Your task to perform on an android device: What's the weather going to be tomorrow? Image 0: 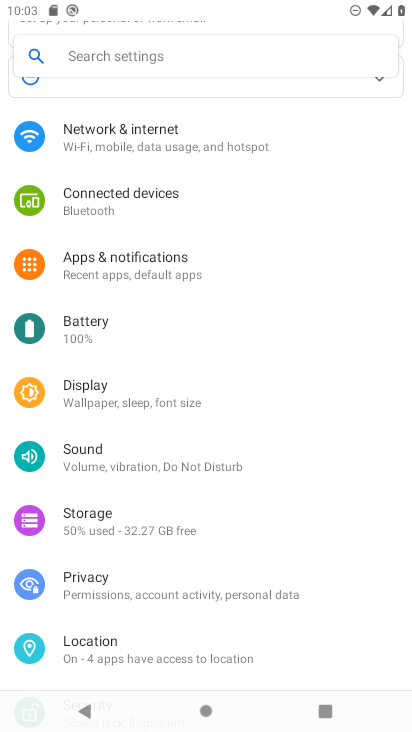
Step 0: press home button
Your task to perform on an android device: What's the weather going to be tomorrow? Image 1: 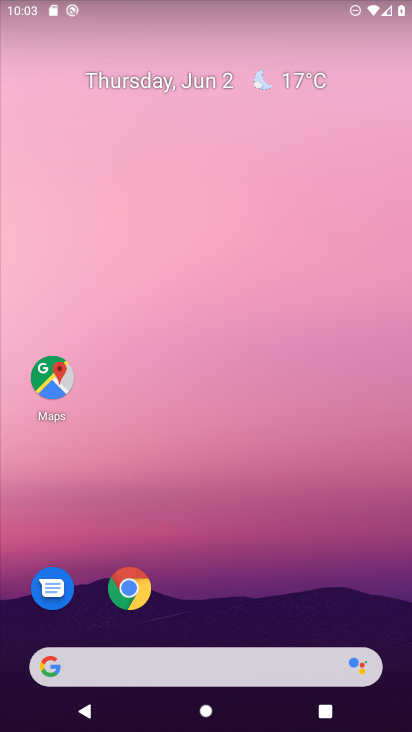
Step 1: drag from (196, 675) to (231, 314)
Your task to perform on an android device: What's the weather going to be tomorrow? Image 2: 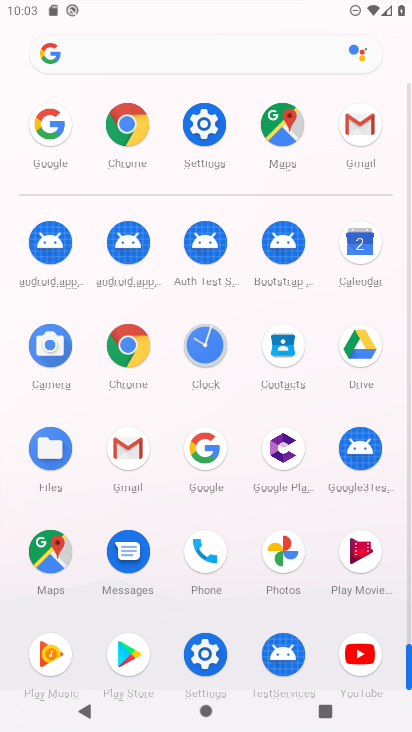
Step 2: click (214, 484)
Your task to perform on an android device: What's the weather going to be tomorrow? Image 3: 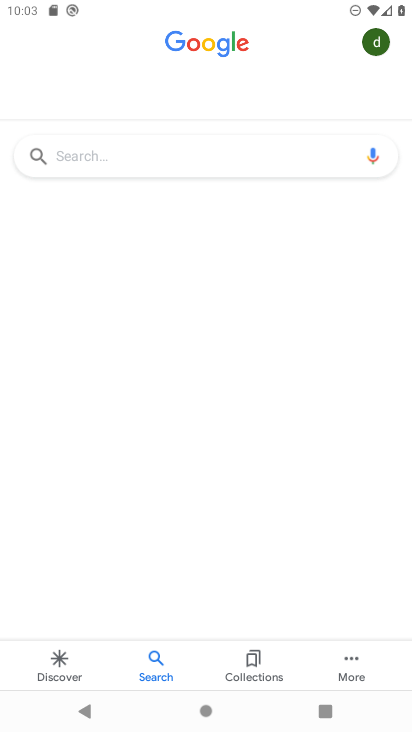
Step 3: click (225, 144)
Your task to perform on an android device: What's the weather going to be tomorrow? Image 4: 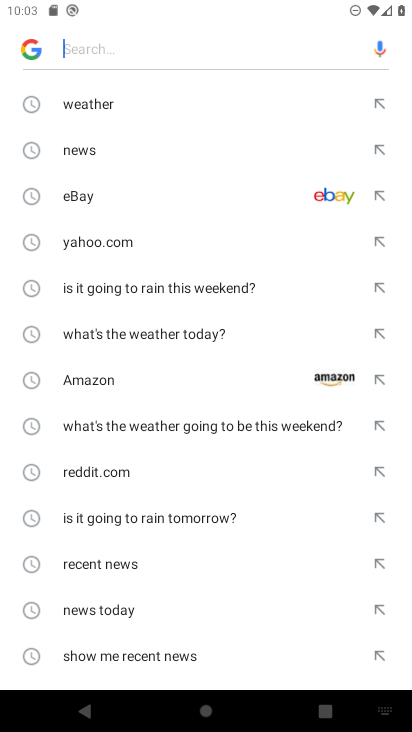
Step 4: click (158, 101)
Your task to perform on an android device: What's the weather going to be tomorrow? Image 5: 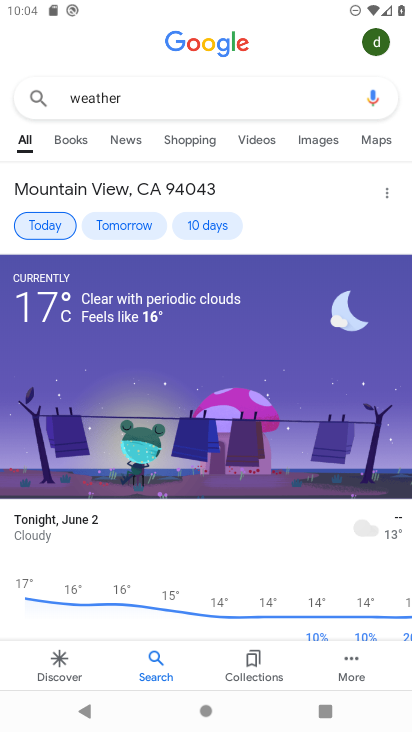
Step 5: click (126, 218)
Your task to perform on an android device: What's the weather going to be tomorrow? Image 6: 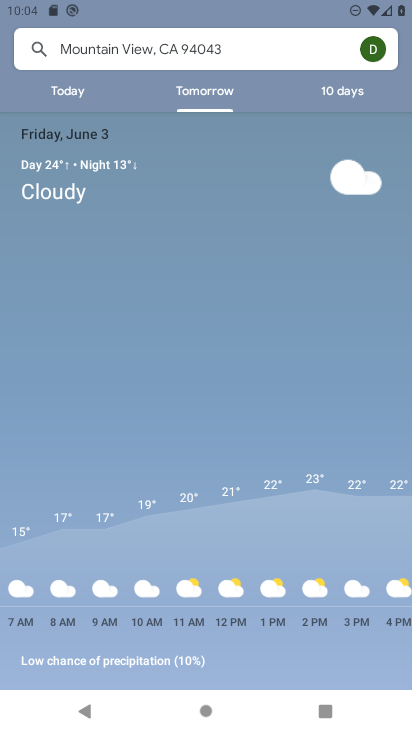
Step 6: task complete